Your task to perform on an android device: Search for Mexican restaurants on Maps Image 0: 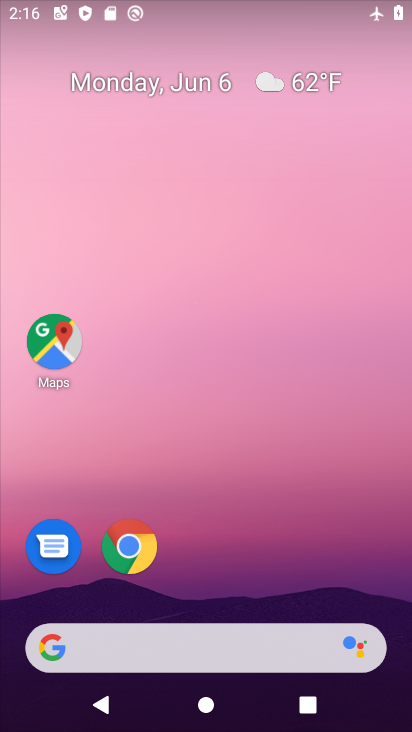
Step 0: click (61, 330)
Your task to perform on an android device: Search for Mexican restaurants on Maps Image 1: 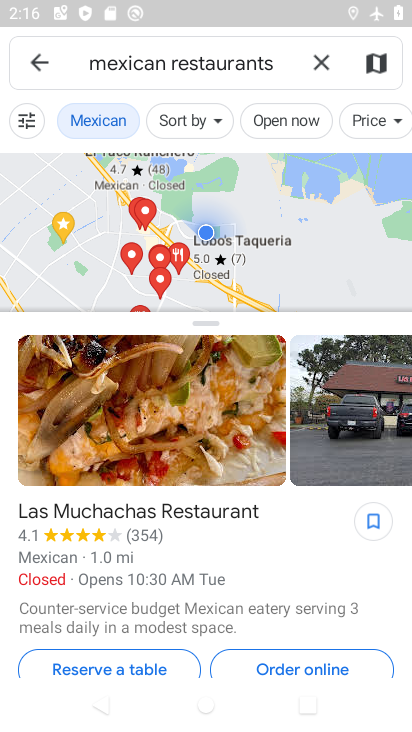
Step 1: task complete